Your task to perform on an android device: toggle priority inbox in the gmail app Image 0: 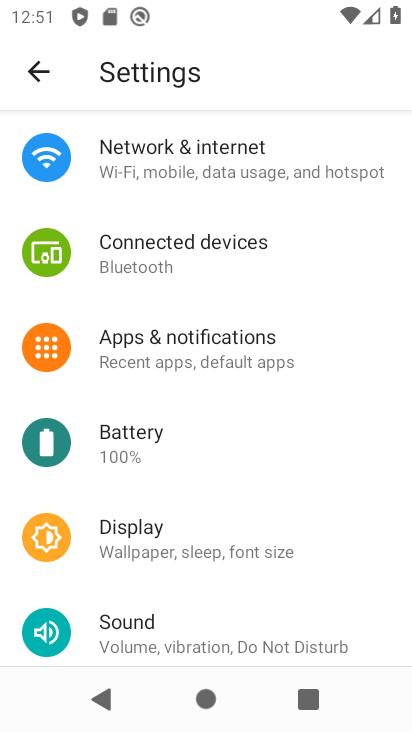
Step 0: press back button
Your task to perform on an android device: toggle priority inbox in the gmail app Image 1: 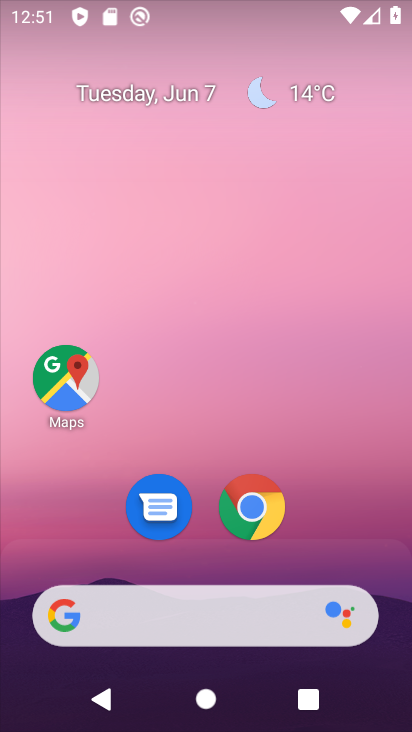
Step 1: drag from (196, 555) to (223, 62)
Your task to perform on an android device: toggle priority inbox in the gmail app Image 2: 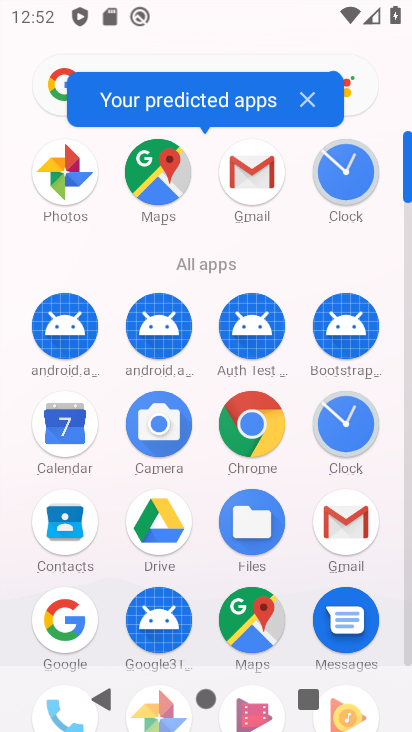
Step 2: click (246, 171)
Your task to perform on an android device: toggle priority inbox in the gmail app Image 3: 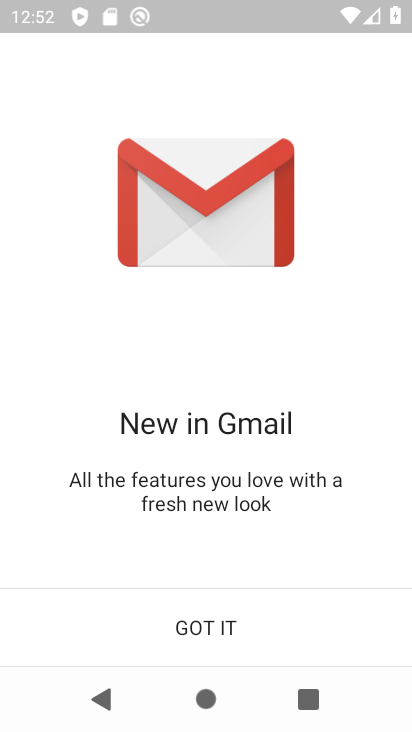
Step 3: click (182, 614)
Your task to perform on an android device: toggle priority inbox in the gmail app Image 4: 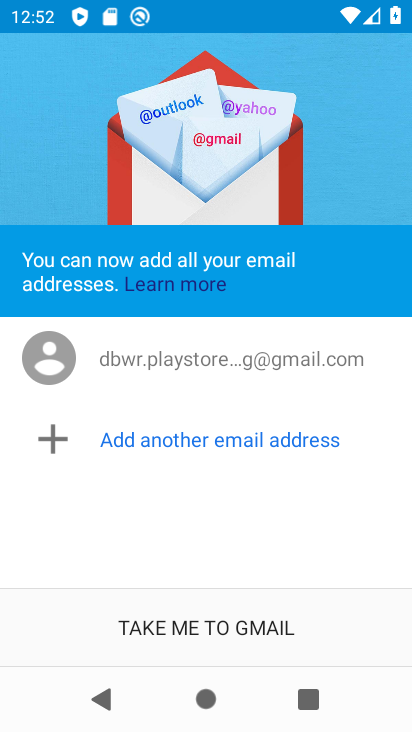
Step 4: click (186, 609)
Your task to perform on an android device: toggle priority inbox in the gmail app Image 5: 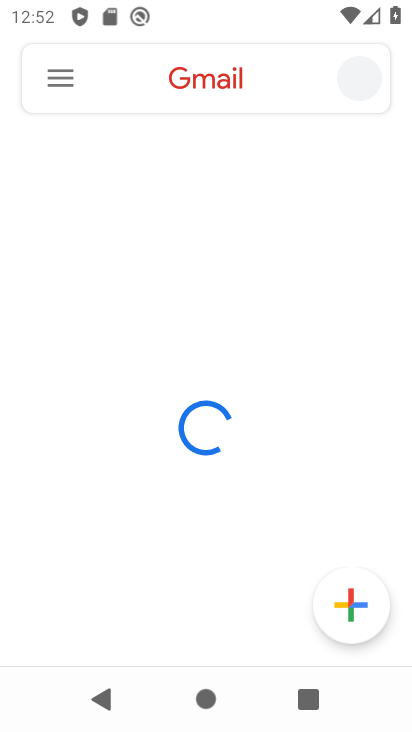
Step 5: click (59, 83)
Your task to perform on an android device: toggle priority inbox in the gmail app Image 6: 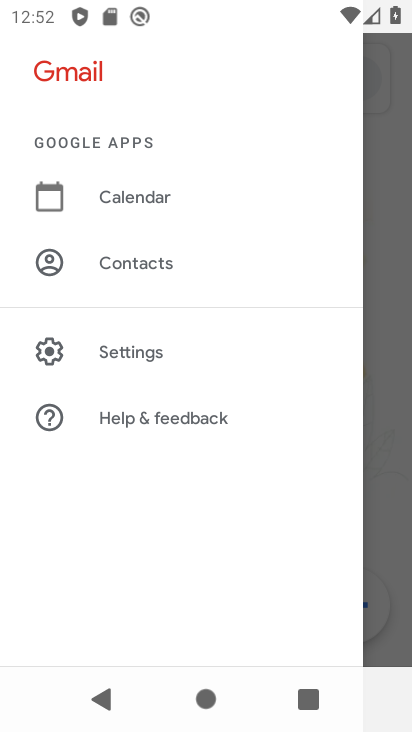
Step 6: click (141, 355)
Your task to perform on an android device: toggle priority inbox in the gmail app Image 7: 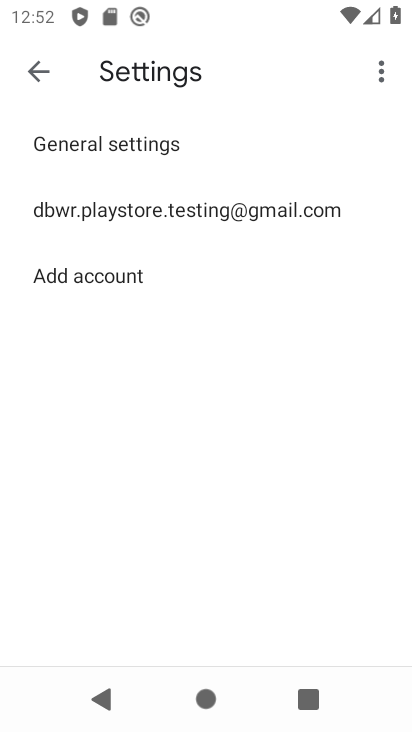
Step 7: click (116, 197)
Your task to perform on an android device: toggle priority inbox in the gmail app Image 8: 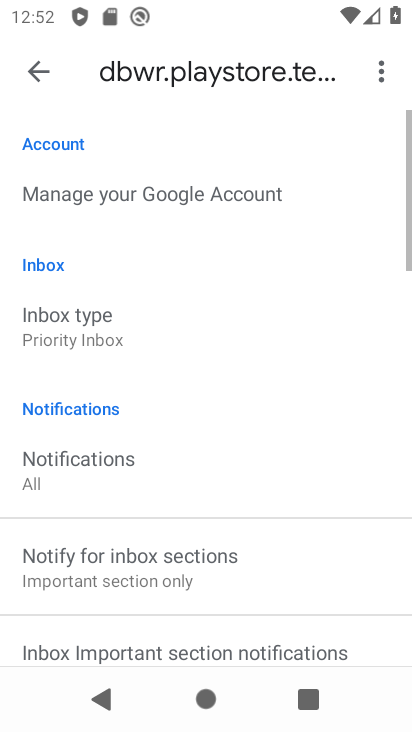
Step 8: click (72, 350)
Your task to perform on an android device: toggle priority inbox in the gmail app Image 9: 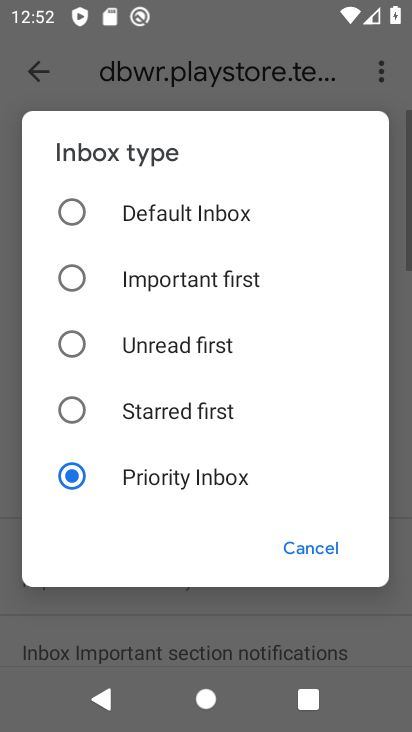
Step 9: click (78, 474)
Your task to perform on an android device: toggle priority inbox in the gmail app Image 10: 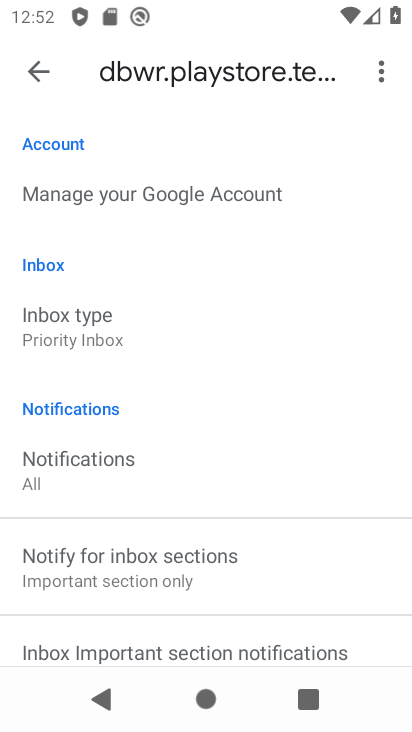
Step 10: task complete